Your task to perform on an android device: What's on my calendar today? Image 0: 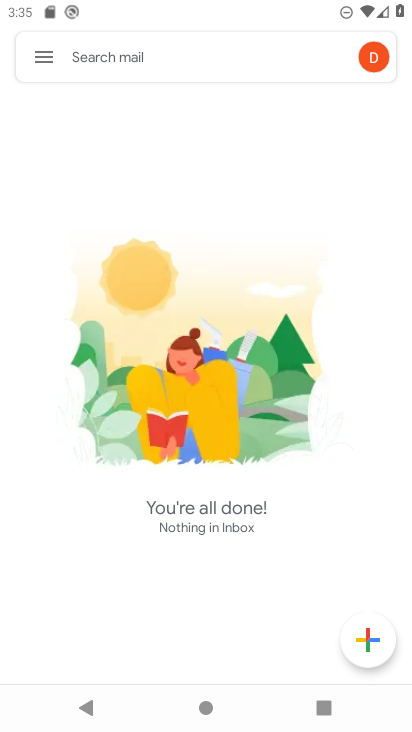
Step 0: press home button
Your task to perform on an android device: What's on my calendar today? Image 1: 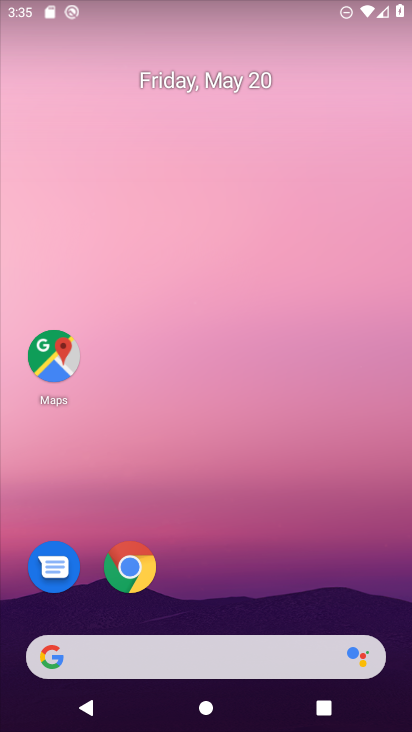
Step 1: drag from (223, 723) to (235, 74)
Your task to perform on an android device: What's on my calendar today? Image 2: 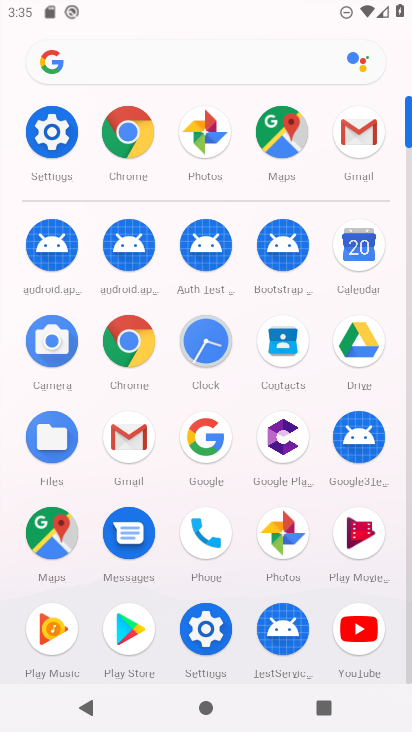
Step 2: click (359, 247)
Your task to perform on an android device: What's on my calendar today? Image 3: 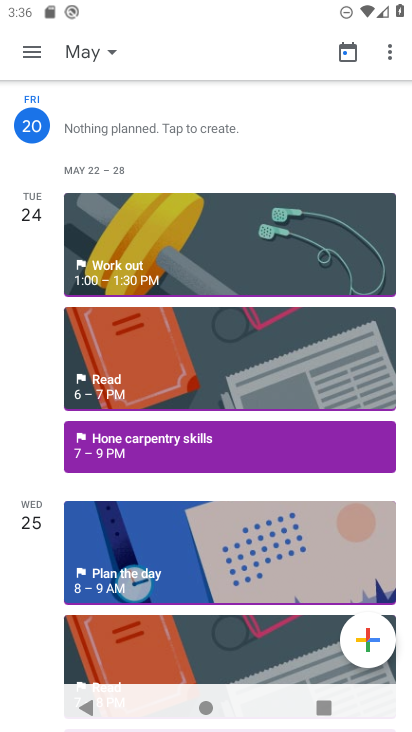
Step 3: click (98, 49)
Your task to perform on an android device: What's on my calendar today? Image 4: 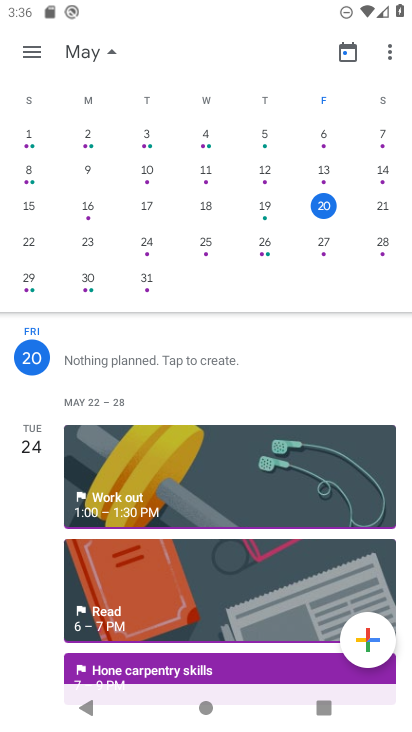
Step 4: click (326, 202)
Your task to perform on an android device: What's on my calendar today? Image 5: 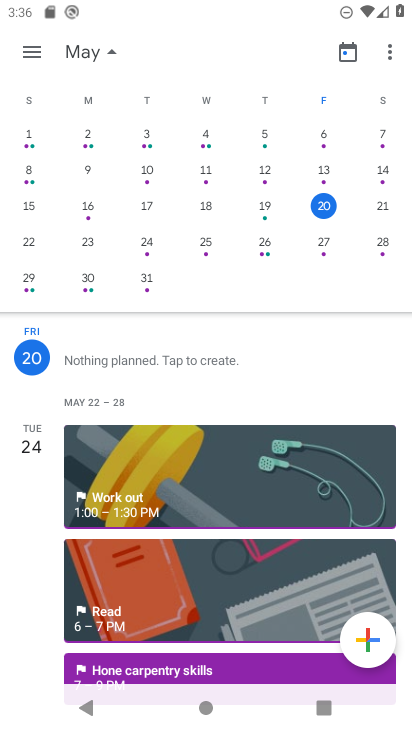
Step 5: click (325, 201)
Your task to perform on an android device: What's on my calendar today? Image 6: 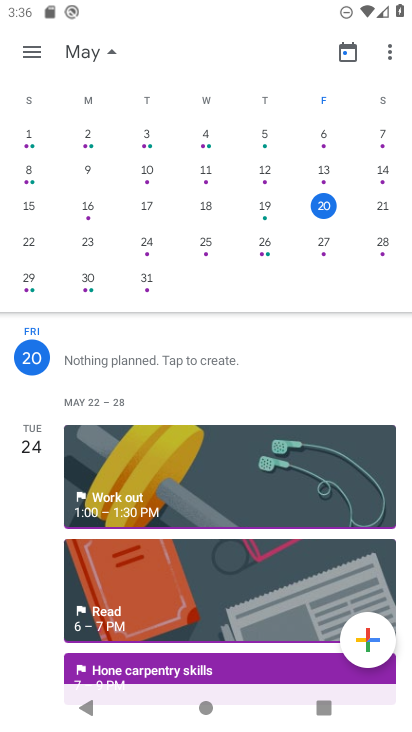
Step 6: click (322, 201)
Your task to perform on an android device: What's on my calendar today? Image 7: 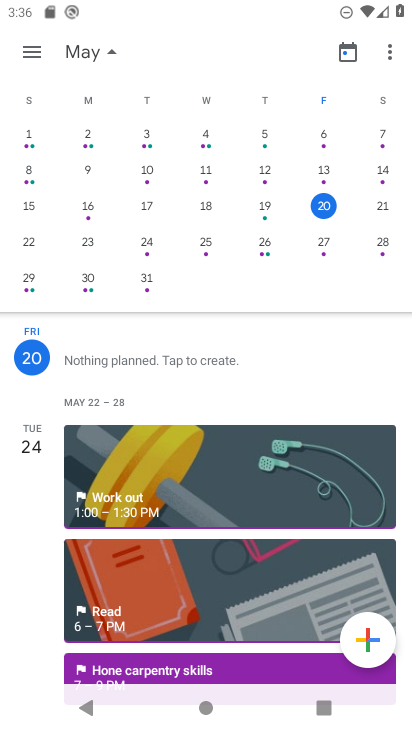
Step 7: task complete